Your task to perform on an android device: turn on bluetooth scan Image 0: 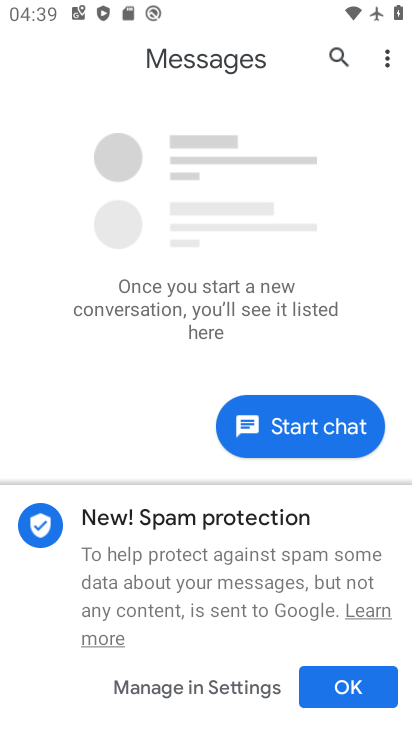
Step 0: press back button
Your task to perform on an android device: turn on bluetooth scan Image 1: 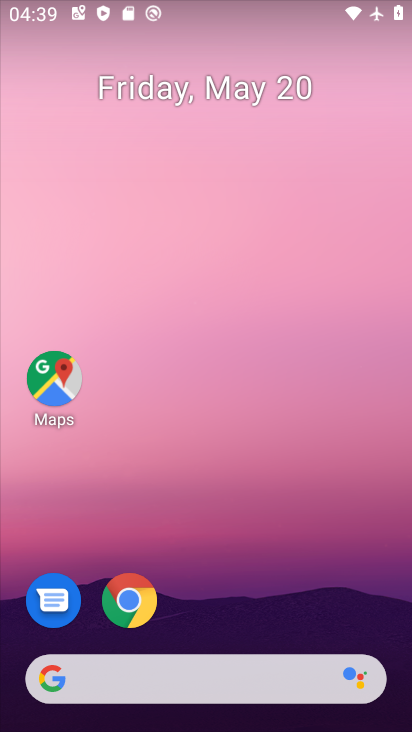
Step 1: drag from (217, 575) to (221, 1)
Your task to perform on an android device: turn on bluetooth scan Image 2: 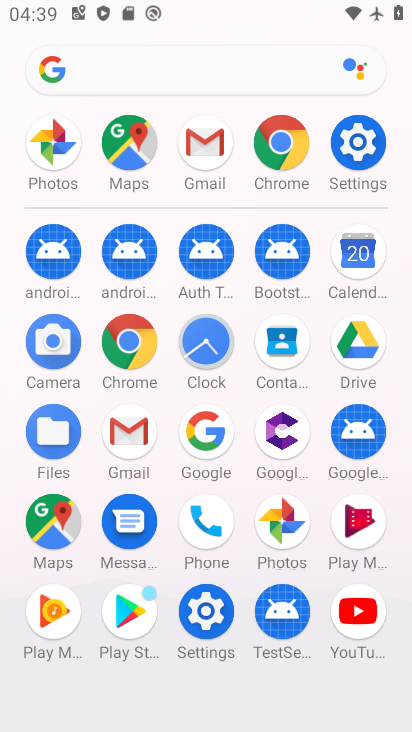
Step 2: drag from (10, 584) to (1, 293)
Your task to perform on an android device: turn on bluetooth scan Image 3: 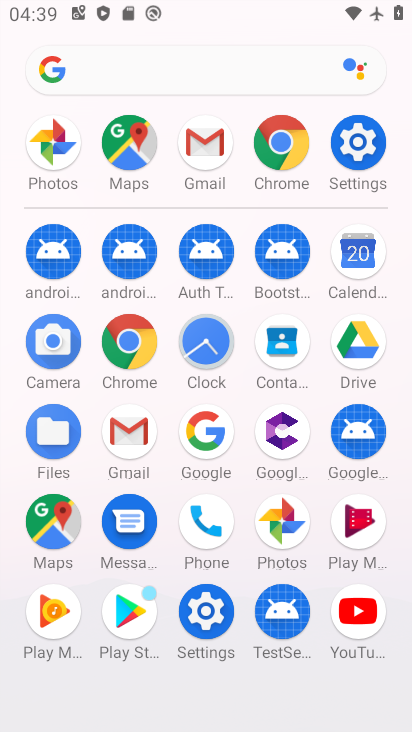
Step 3: click (198, 612)
Your task to perform on an android device: turn on bluetooth scan Image 4: 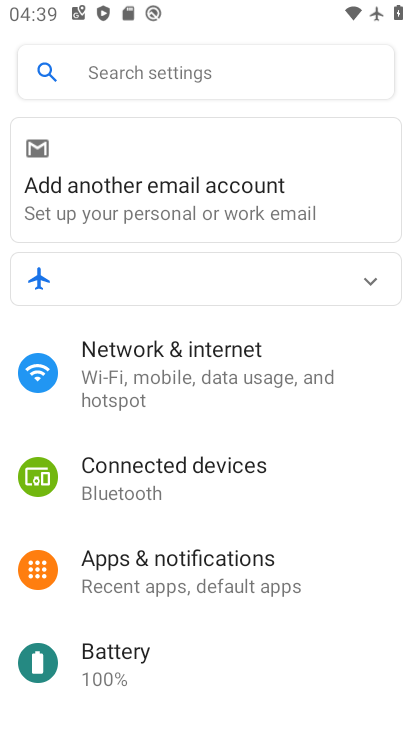
Step 4: drag from (316, 576) to (319, 112)
Your task to perform on an android device: turn on bluetooth scan Image 5: 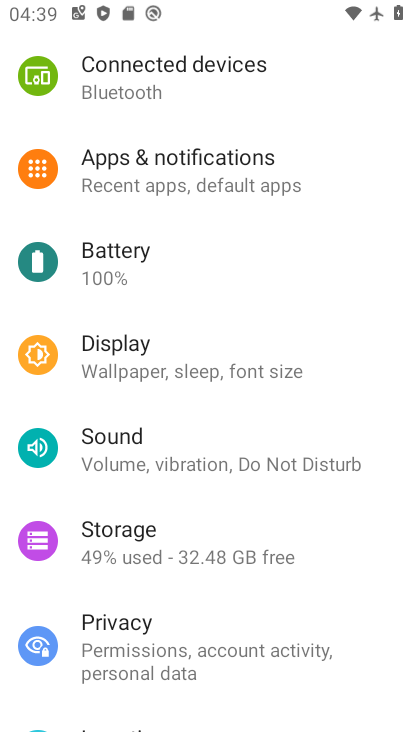
Step 5: drag from (243, 552) to (274, 192)
Your task to perform on an android device: turn on bluetooth scan Image 6: 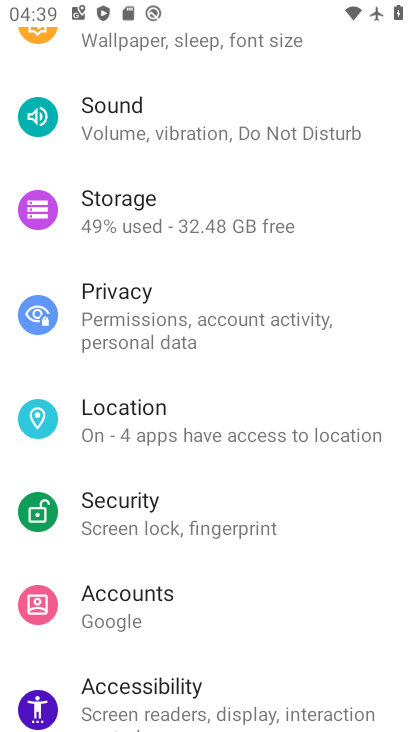
Step 6: click (175, 425)
Your task to perform on an android device: turn on bluetooth scan Image 7: 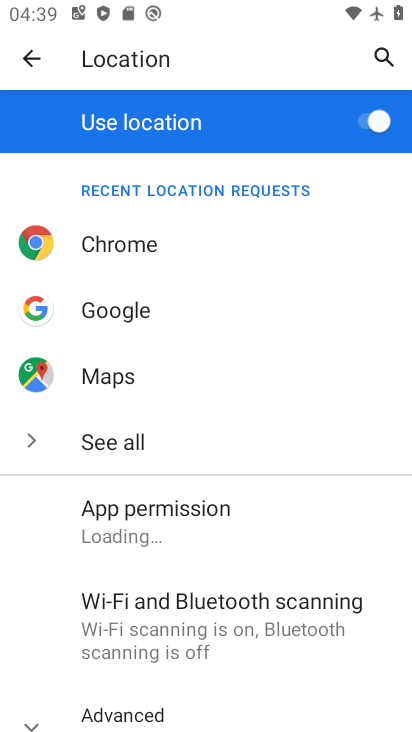
Step 7: click (220, 612)
Your task to perform on an android device: turn on bluetooth scan Image 8: 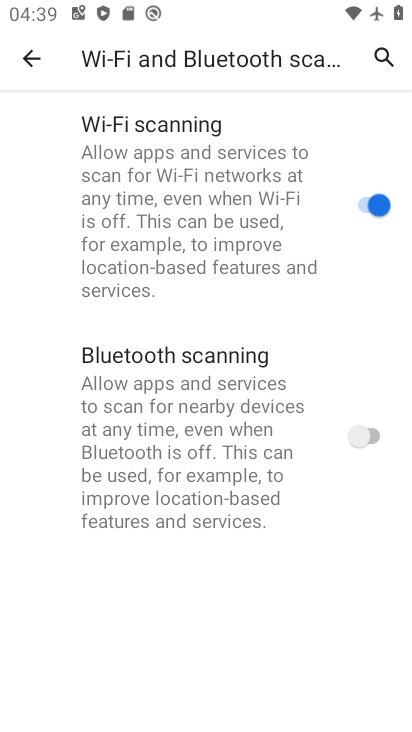
Step 8: click (365, 433)
Your task to perform on an android device: turn on bluetooth scan Image 9: 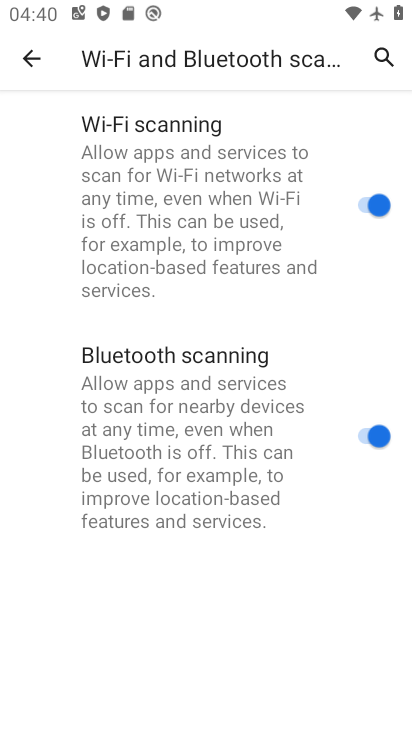
Step 9: task complete